Your task to perform on an android device: What's the weather today? Image 0: 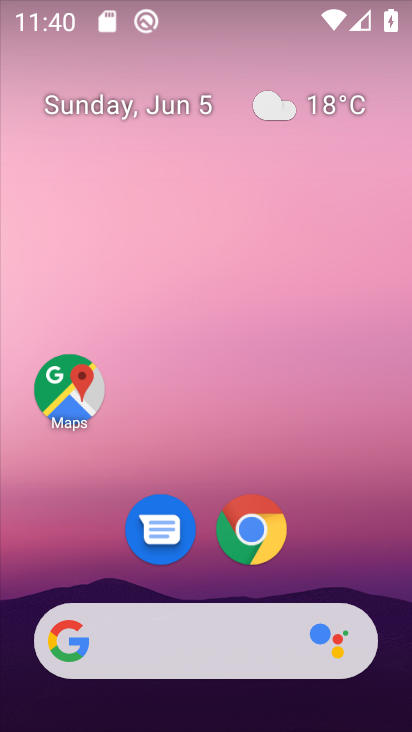
Step 0: click (135, 638)
Your task to perform on an android device: What's the weather today? Image 1: 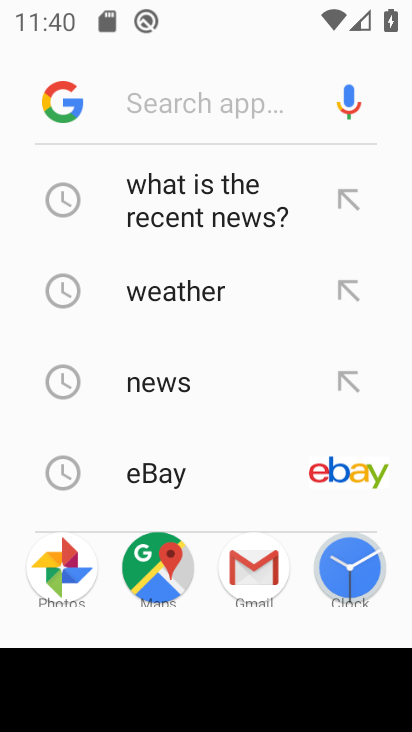
Step 1: type "what's the weather today"
Your task to perform on an android device: What's the weather today? Image 2: 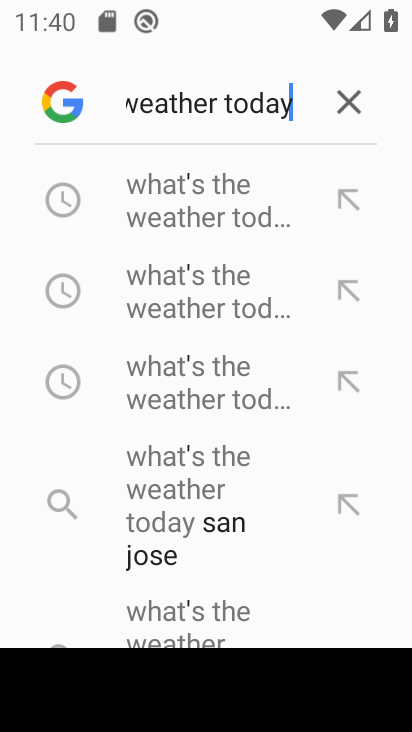
Step 2: click (132, 211)
Your task to perform on an android device: What's the weather today? Image 3: 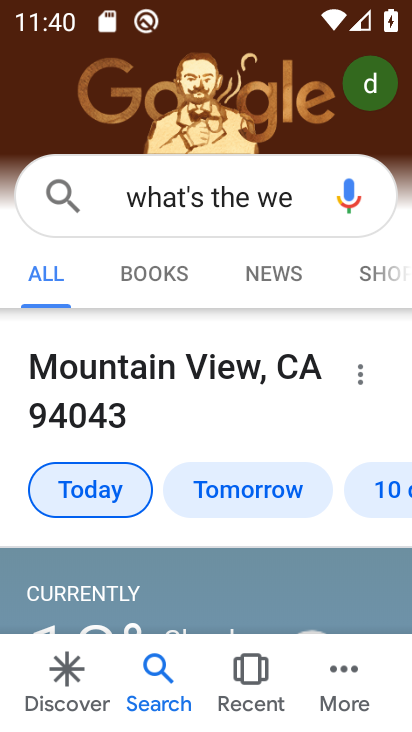
Step 3: task complete